Your task to perform on an android device: open a new tab in the chrome app Image 0: 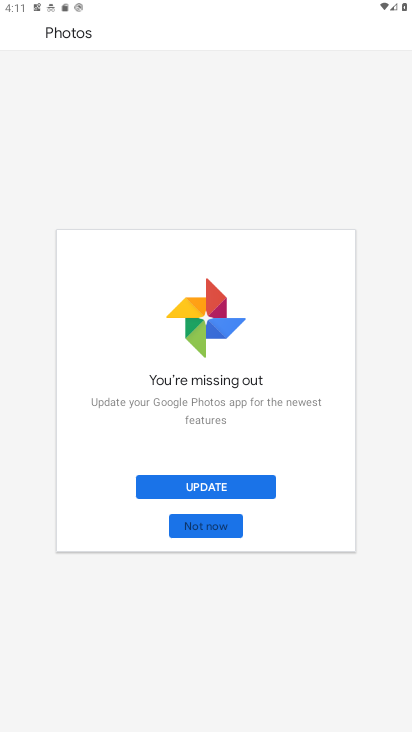
Step 0: press home button
Your task to perform on an android device: open a new tab in the chrome app Image 1: 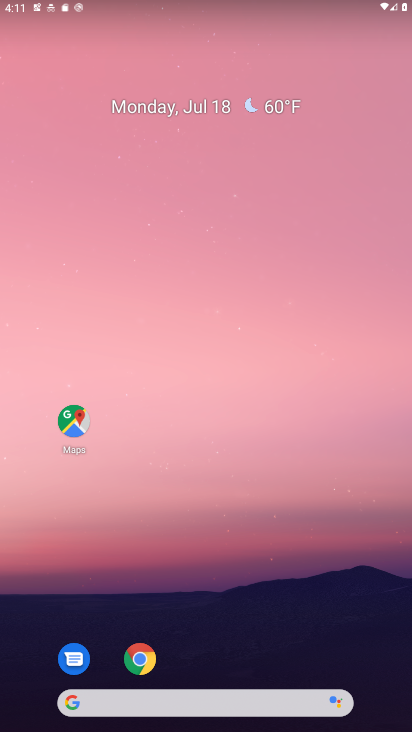
Step 1: drag from (256, 718) to (291, 4)
Your task to perform on an android device: open a new tab in the chrome app Image 2: 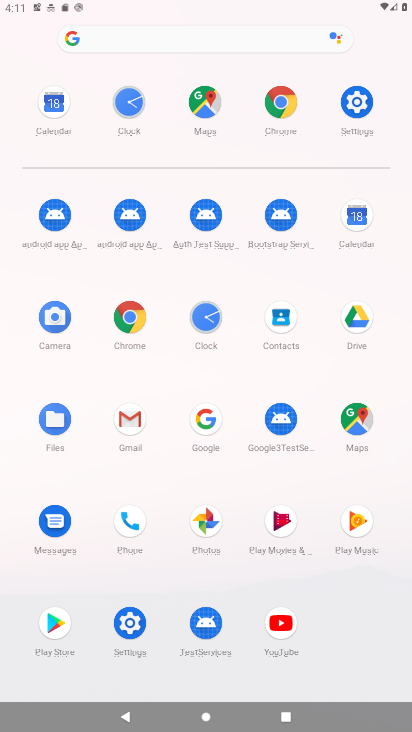
Step 2: click (134, 324)
Your task to perform on an android device: open a new tab in the chrome app Image 3: 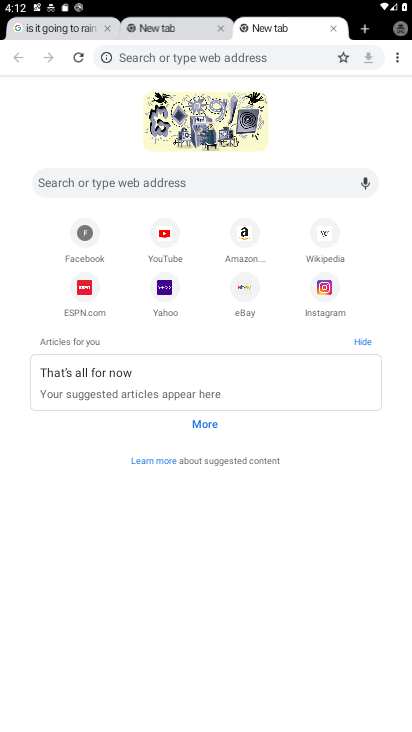
Step 3: task complete